Your task to perform on an android device: turn pop-ups off in chrome Image 0: 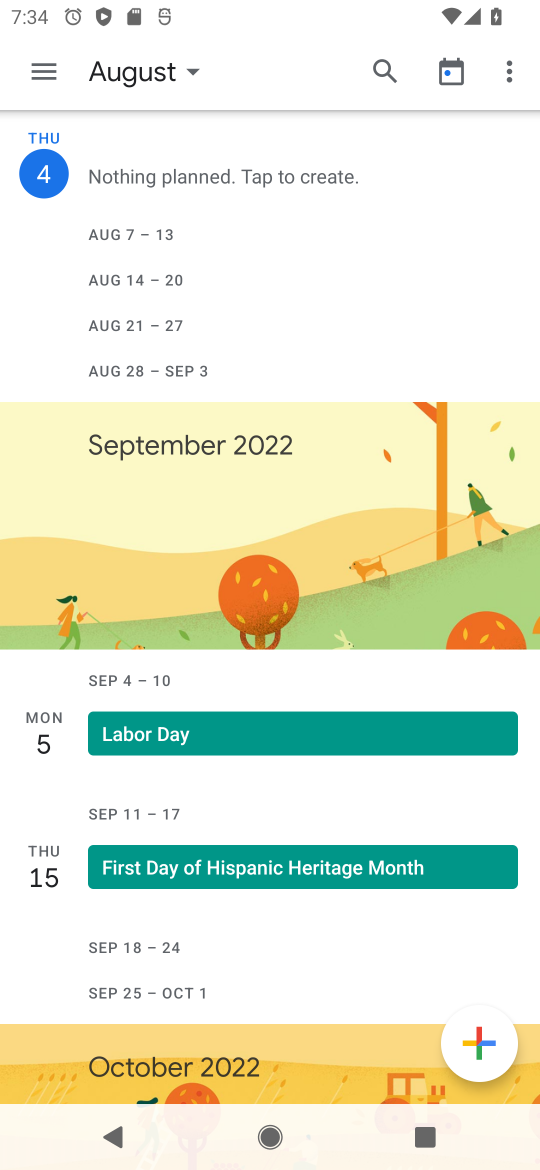
Step 0: press home button
Your task to perform on an android device: turn pop-ups off in chrome Image 1: 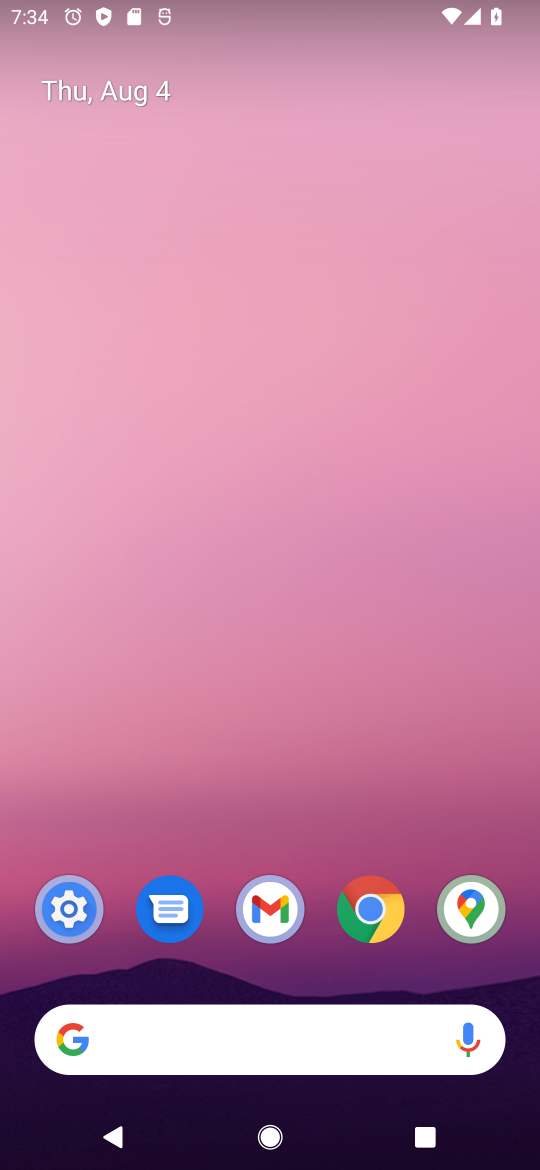
Step 1: drag from (199, 1046) to (223, 59)
Your task to perform on an android device: turn pop-ups off in chrome Image 2: 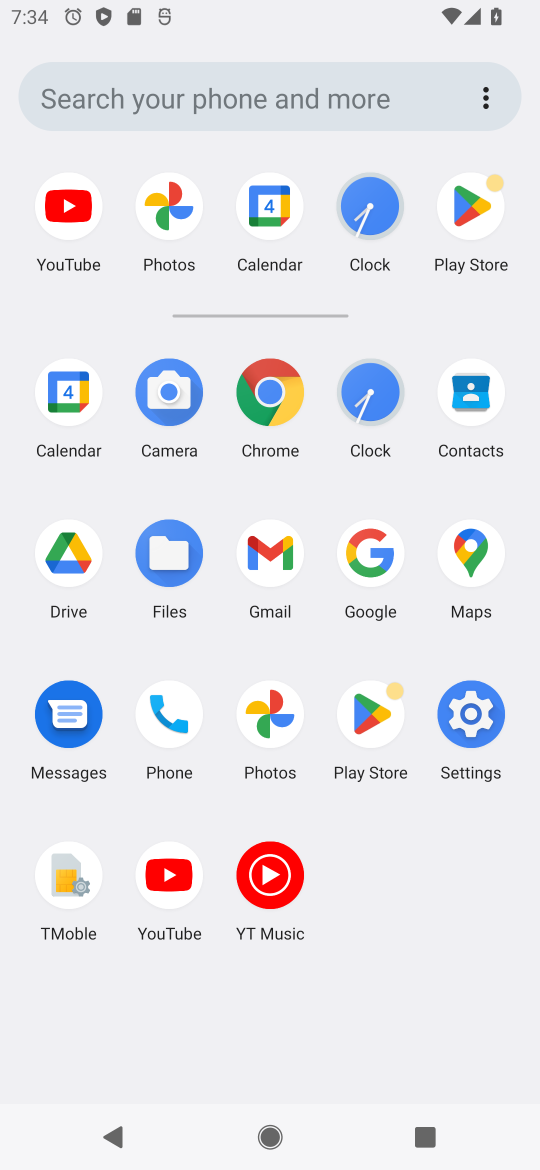
Step 2: click (279, 388)
Your task to perform on an android device: turn pop-ups off in chrome Image 3: 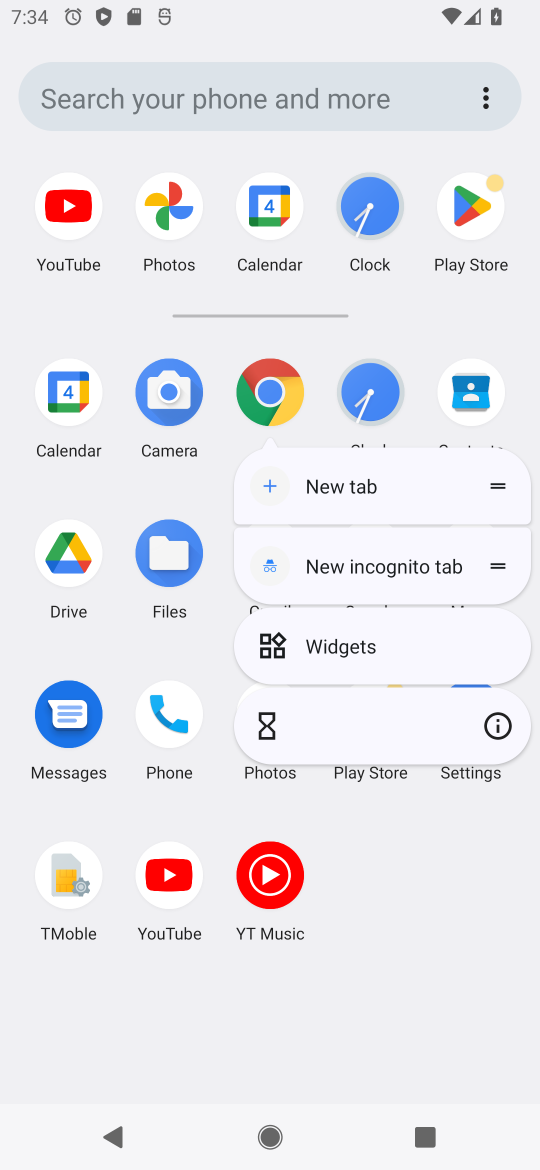
Step 3: click (279, 388)
Your task to perform on an android device: turn pop-ups off in chrome Image 4: 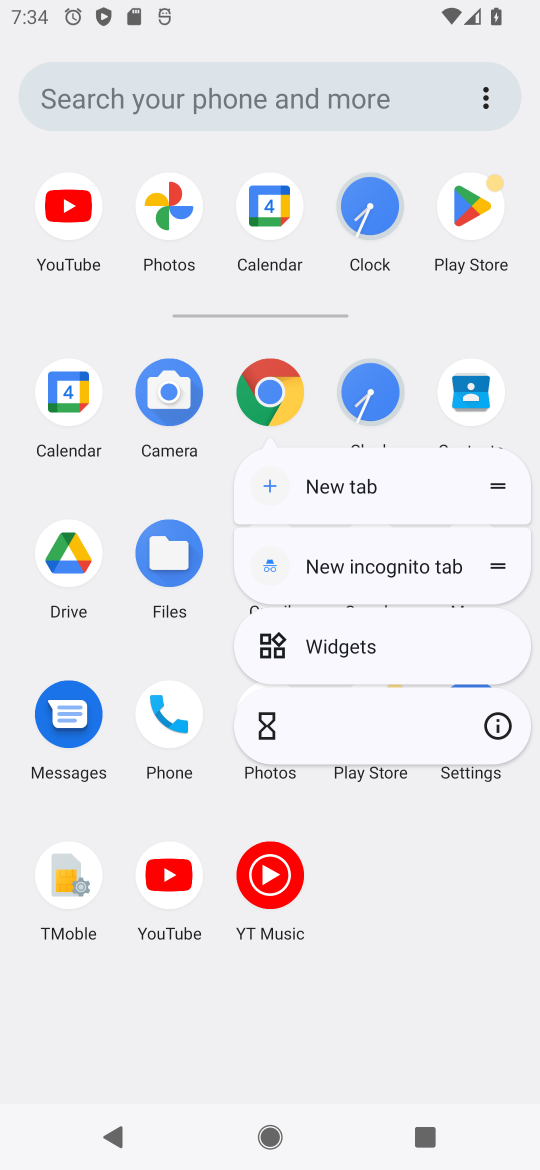
Step 4: click (279, 386)
Your task to perform on an android device: turn pop-ups off in chrome Image 5: 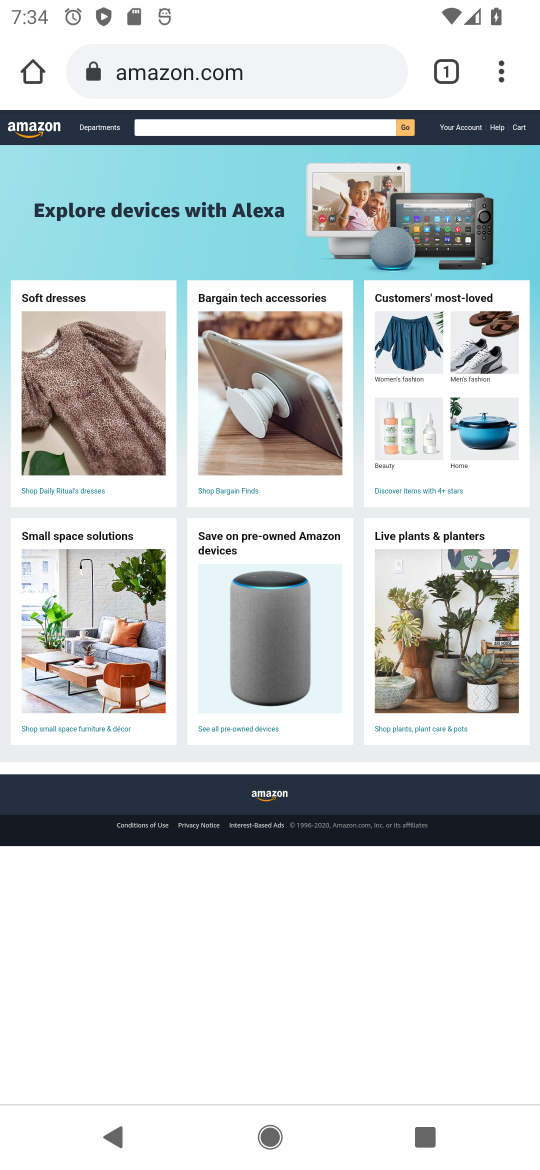
Step 5: drag from (507, 90) to (291, 992)
Your task to perform on an android device: turn pop-ups off in chrome Image 6: 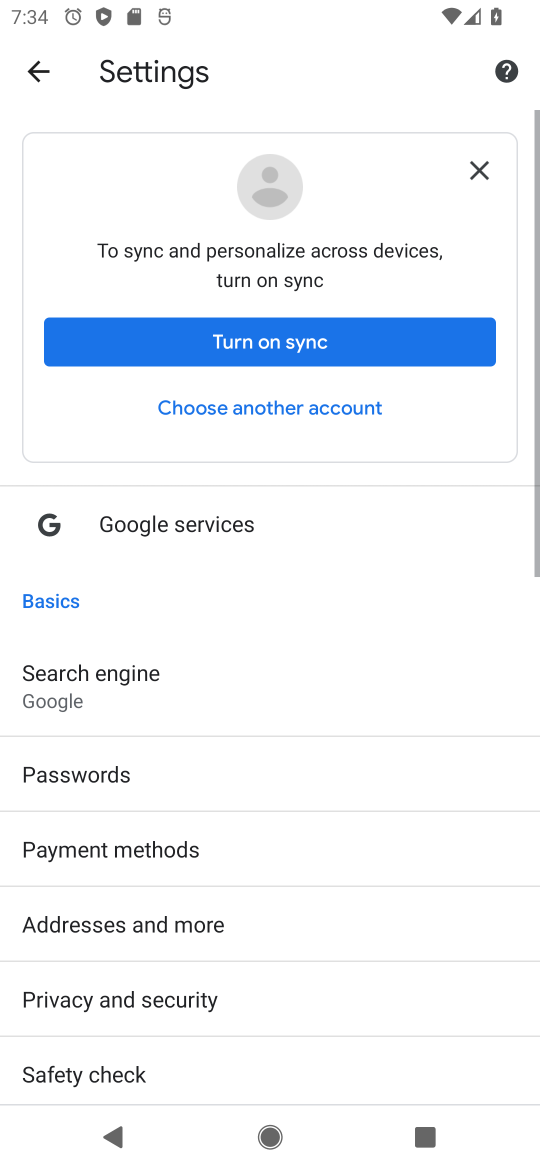
Step 6: drag from (249, 905) to (284, 133)
Your task to perform on an android device: turn pop-ups off in chrome Image 7: 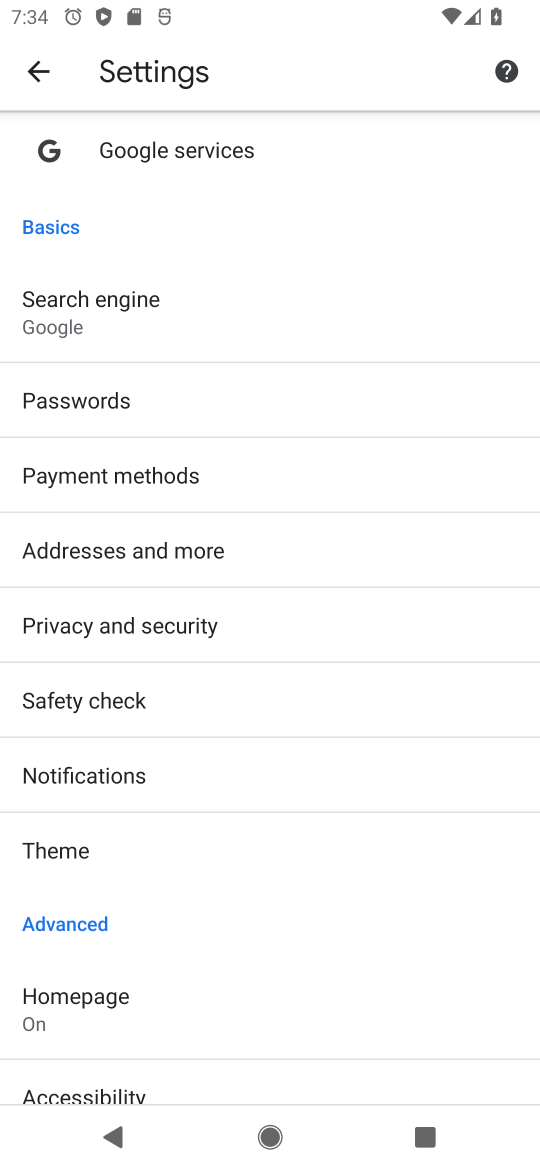
Step 7: drag from (240, 256) to (263, 186)
Your task to perform on an android device: turn pop-ups off in chrome Image 8: 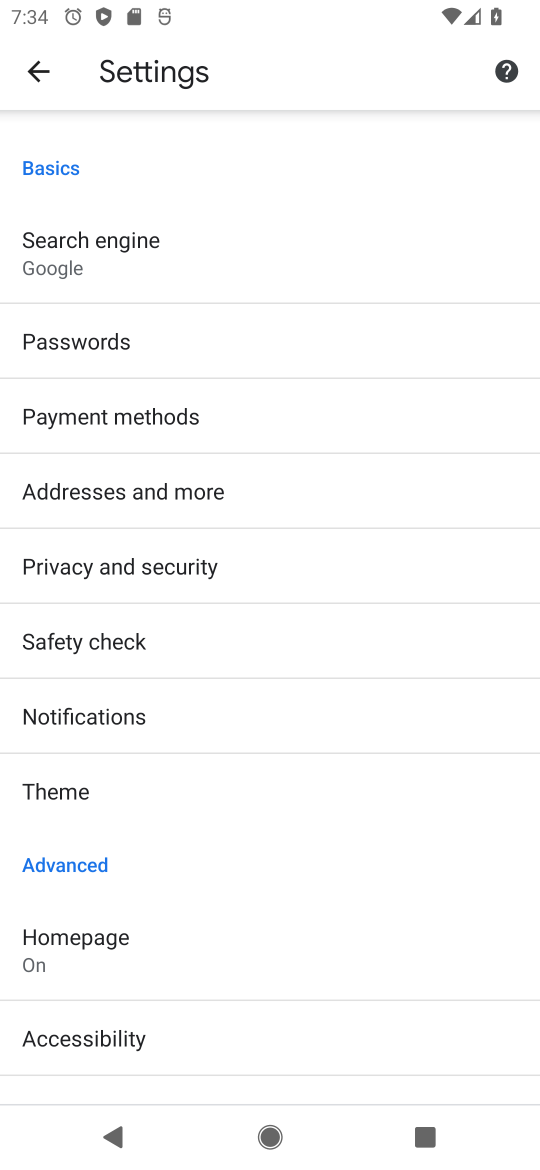
Step 8: drag from (93, 988) to (195, 213)
Your task to perform on an android device: turn pop-ups off in chrome Image 9: 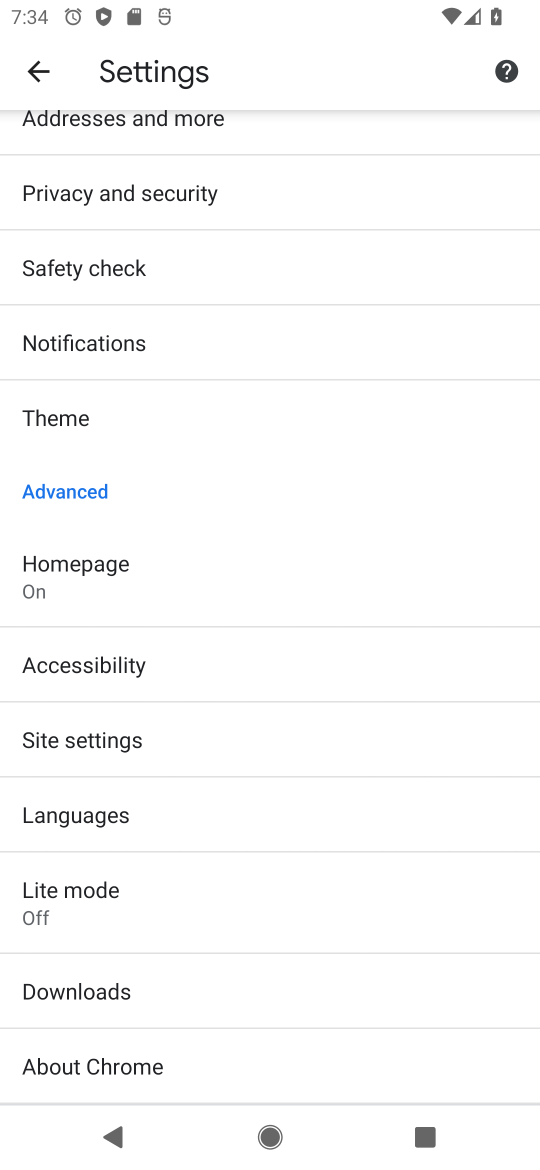
Step 9: drag from (88, 993) to (179, 174)
Your task to perform on an android device: turn pop-ups off in chrome Image 10: 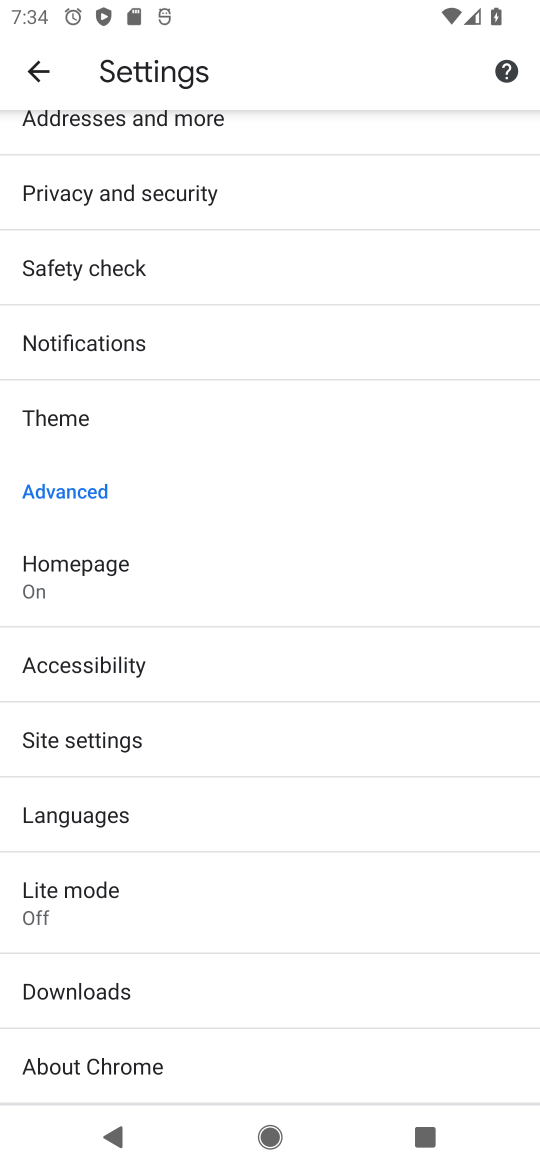
Step 10: drag from (167, 1003) to (191, 114)
Your task to perform on an android device: turn pop-ups off in chrome Image 11: 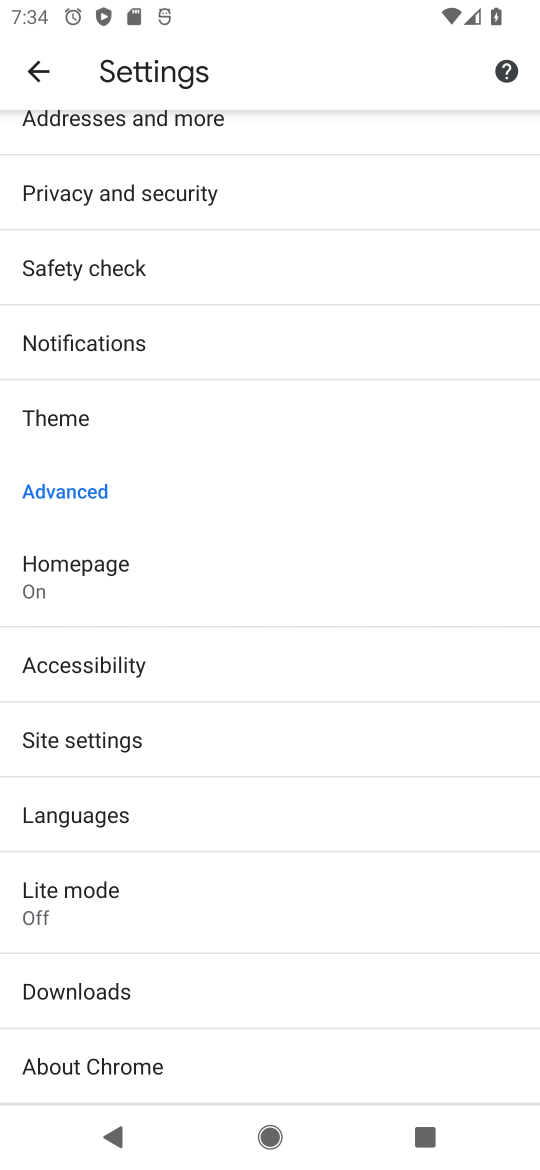
Step 11: click (56, 732)
Your task to perform on an android device: turn pop-ups off in chrome Image 12: 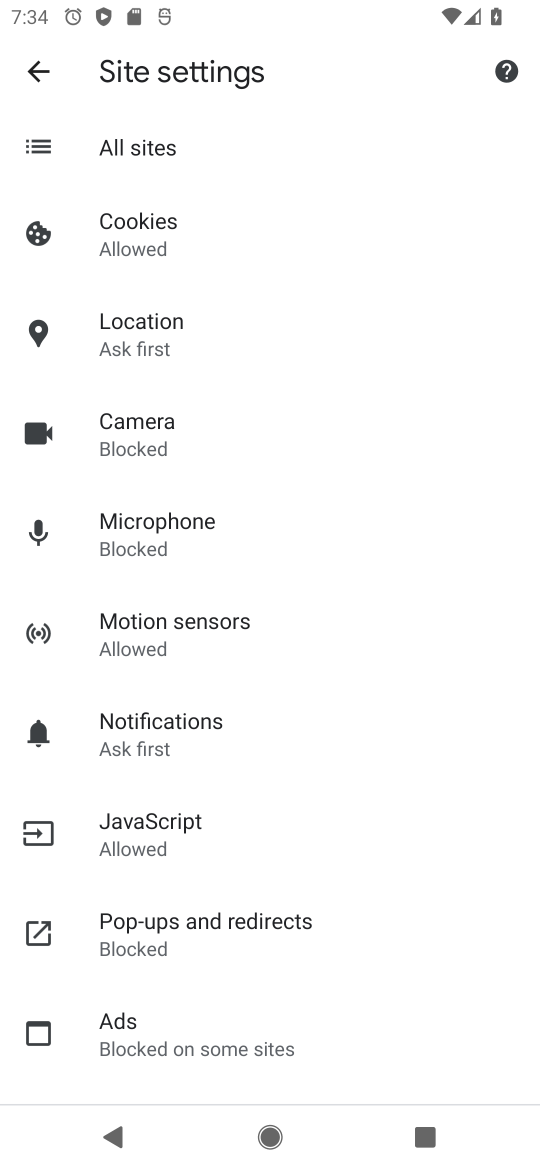
Step 12: click (247, 928)
Your task to perform on an android device: turn pop-ups off in chrome Image 13: 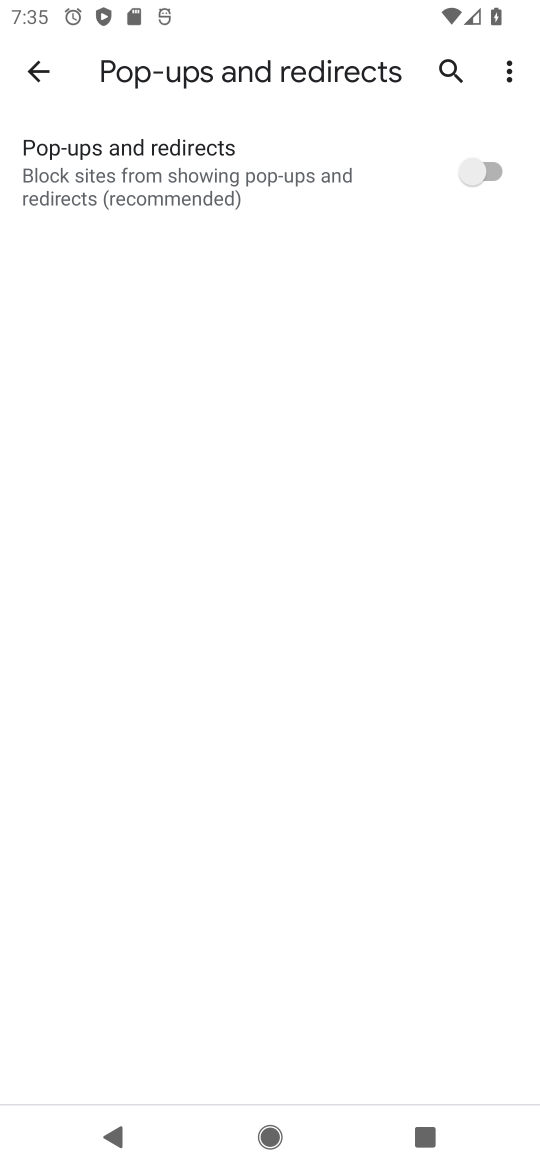
Step 13: task complete